Your task to perform on an android device: Open Reddit.com Image 0: 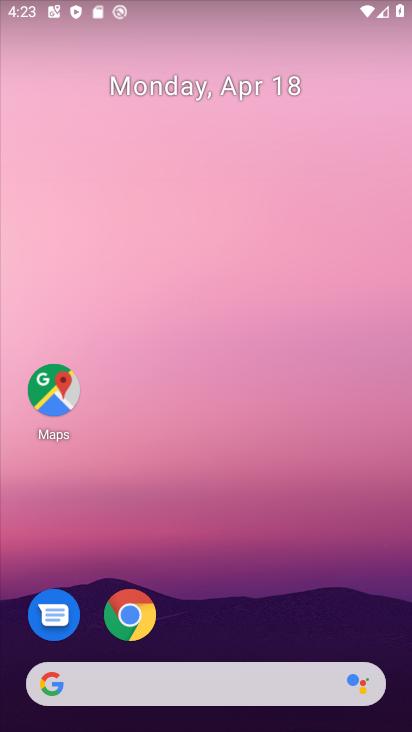
Step 0: click (123, 616)
Your task to perform on an android device: Open Reddit.com Image 1: 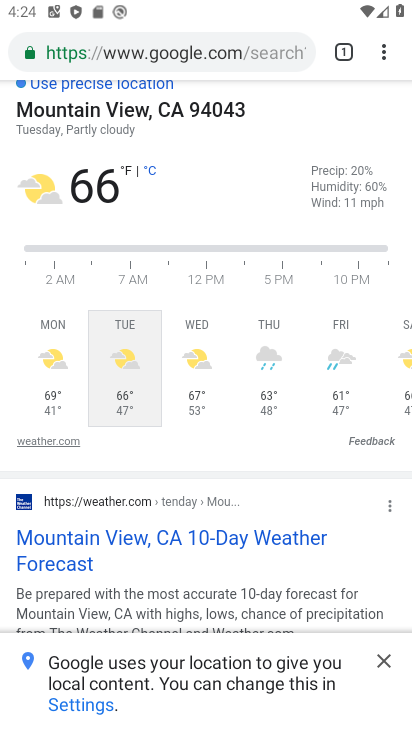
Step 1: click (225, 64)
Your task to perform on an android device: Open Reddit.com Image 2: 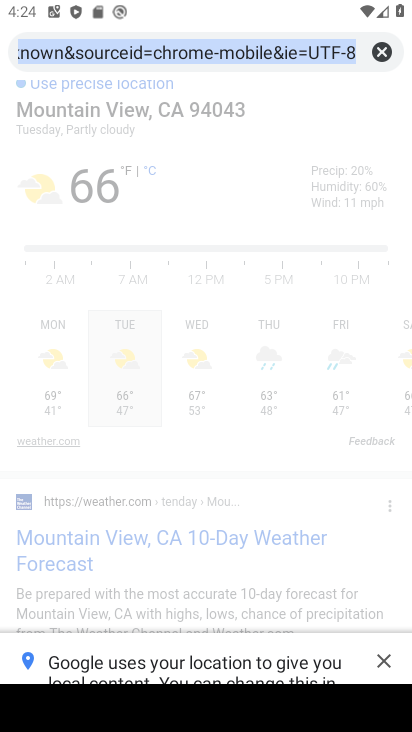
Step 2: type "reddit.com"
Your task to perform on an android device: Open Reddit.com Image 3: 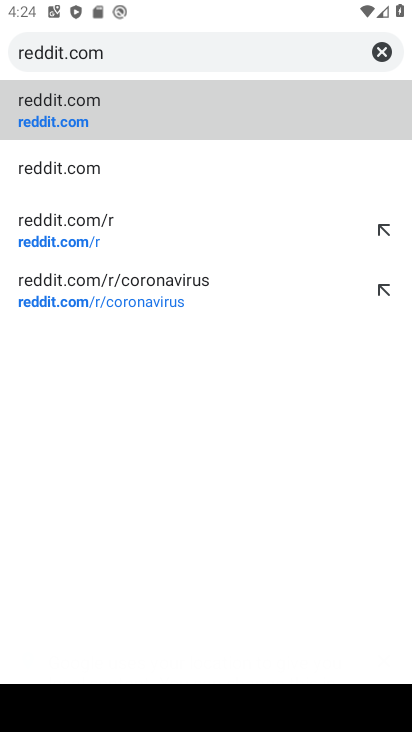
Step 3: click (81, 98)
Your task to perform on an android device: Open Reddit.com Image 4: 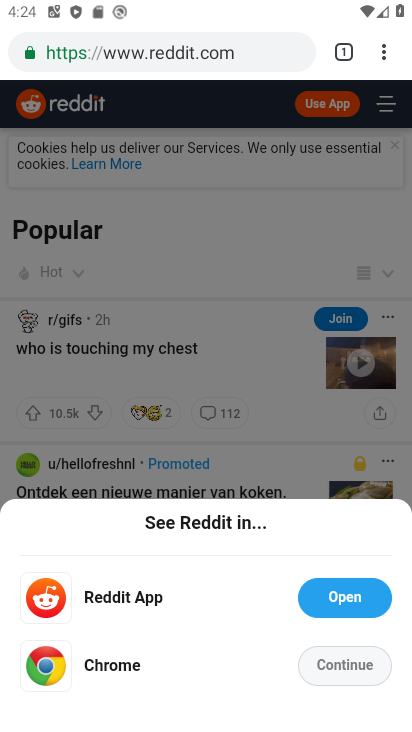
Step 4: click (347, 664)
Your task to perform on an android device: Open Reddit.com Image 5: 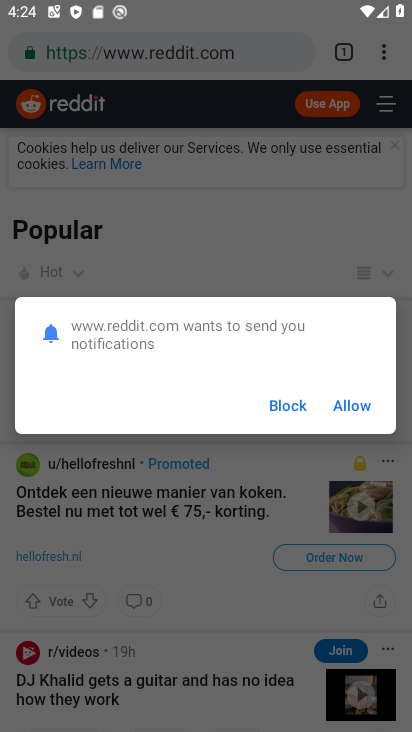
Step 5: click (280, 401)
Your task to perform on an android device: Open Reddit.com Image 6: 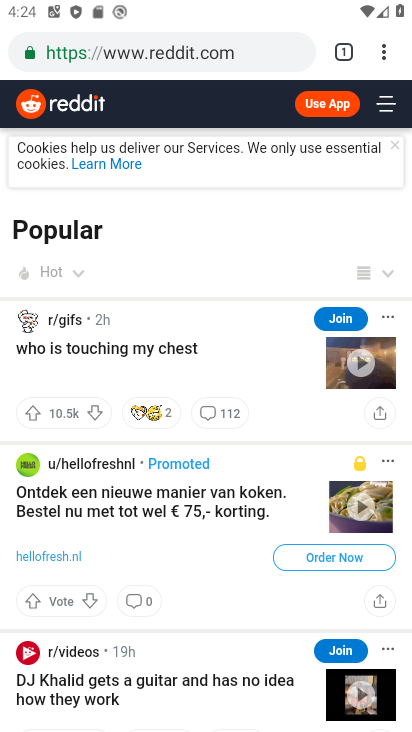
Step 6: task complete